Your task to perform on an android device: Open the Play Movies app and select the watchlist tab. Image 0: 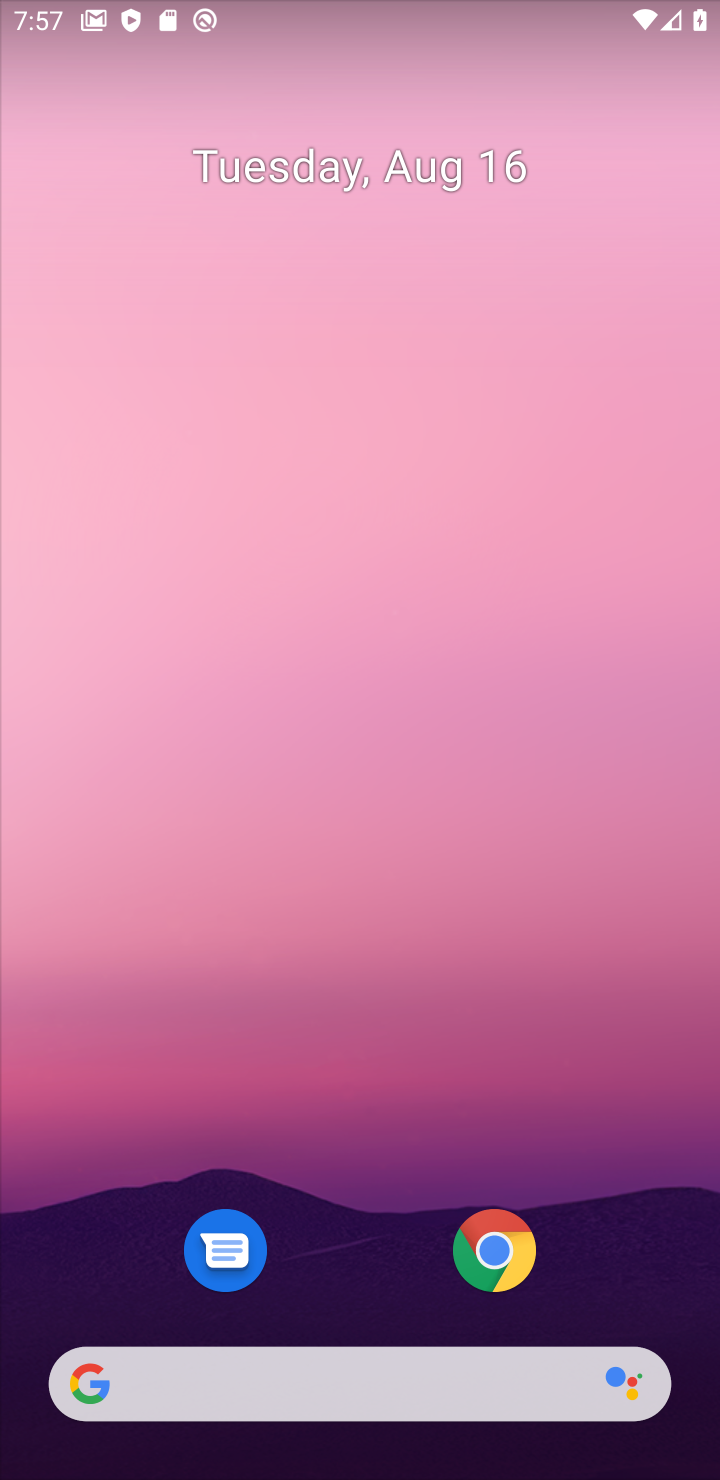
Step 0: drag from (402, 1246) to (252, 205)
Your task to perform on an android device: Open the Play Movies app and select the watchlist tab. Image 1: 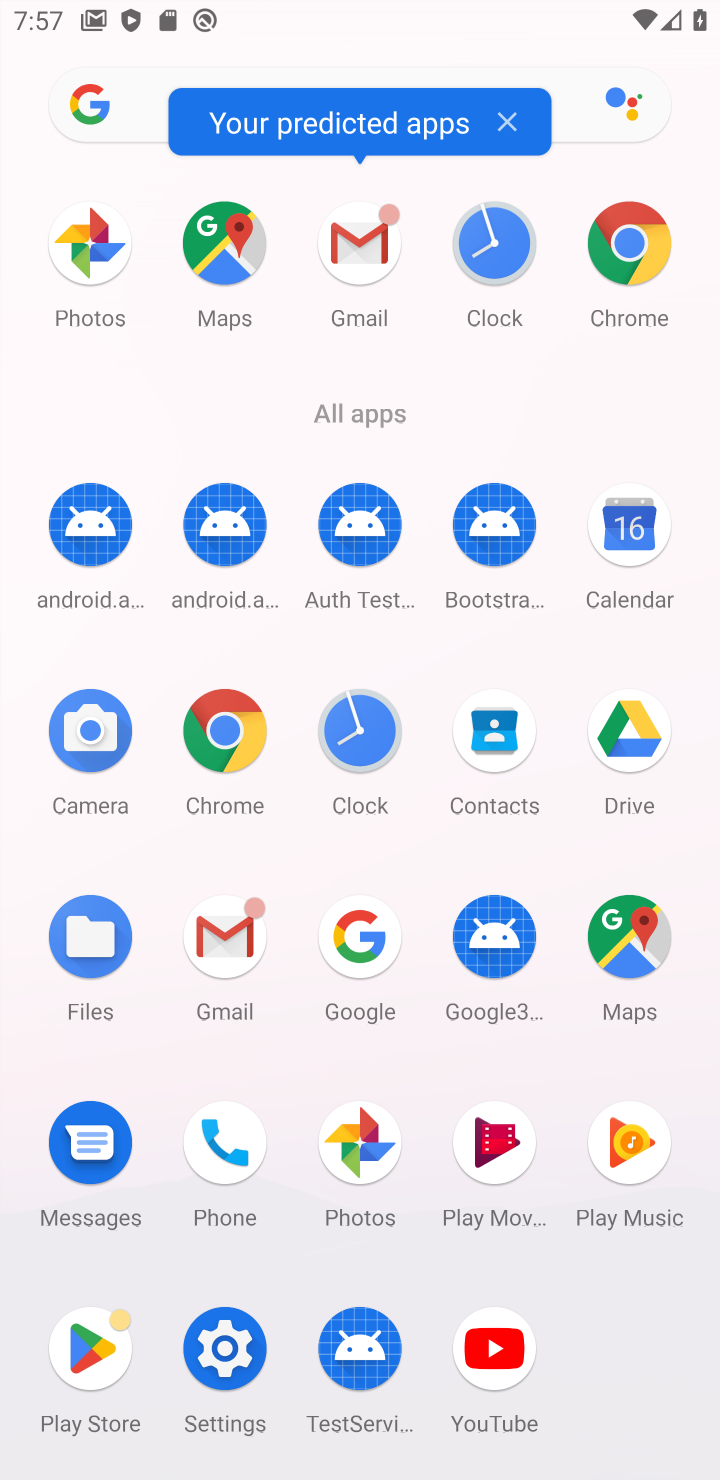
Step 1: click (500, 1150)
Your task to perform on an android device: Open the Play Movies app and select the watchlist tab. Image 2: 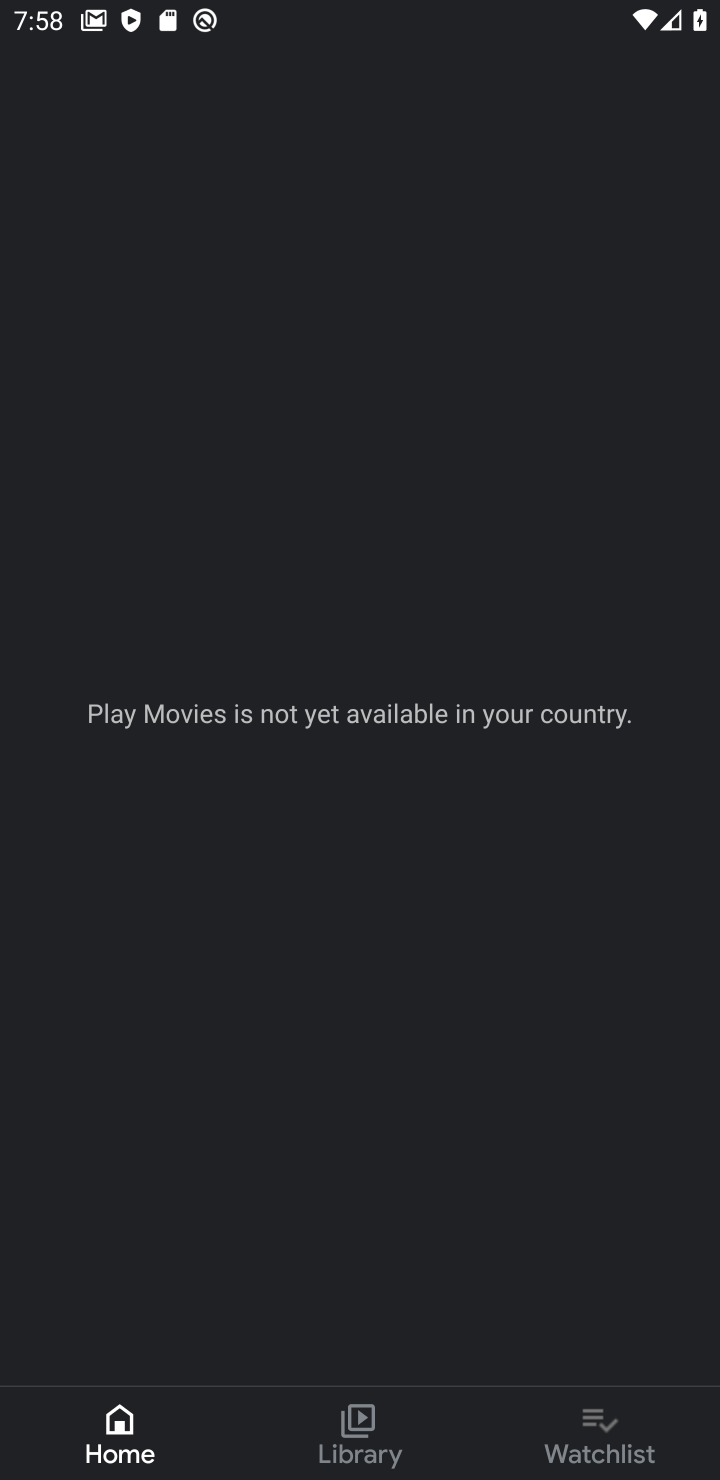
Step 2: click (643, 1411)
Your task to perform on an android device: Open the Play Movies app and select the watchlist tab. Image 3: 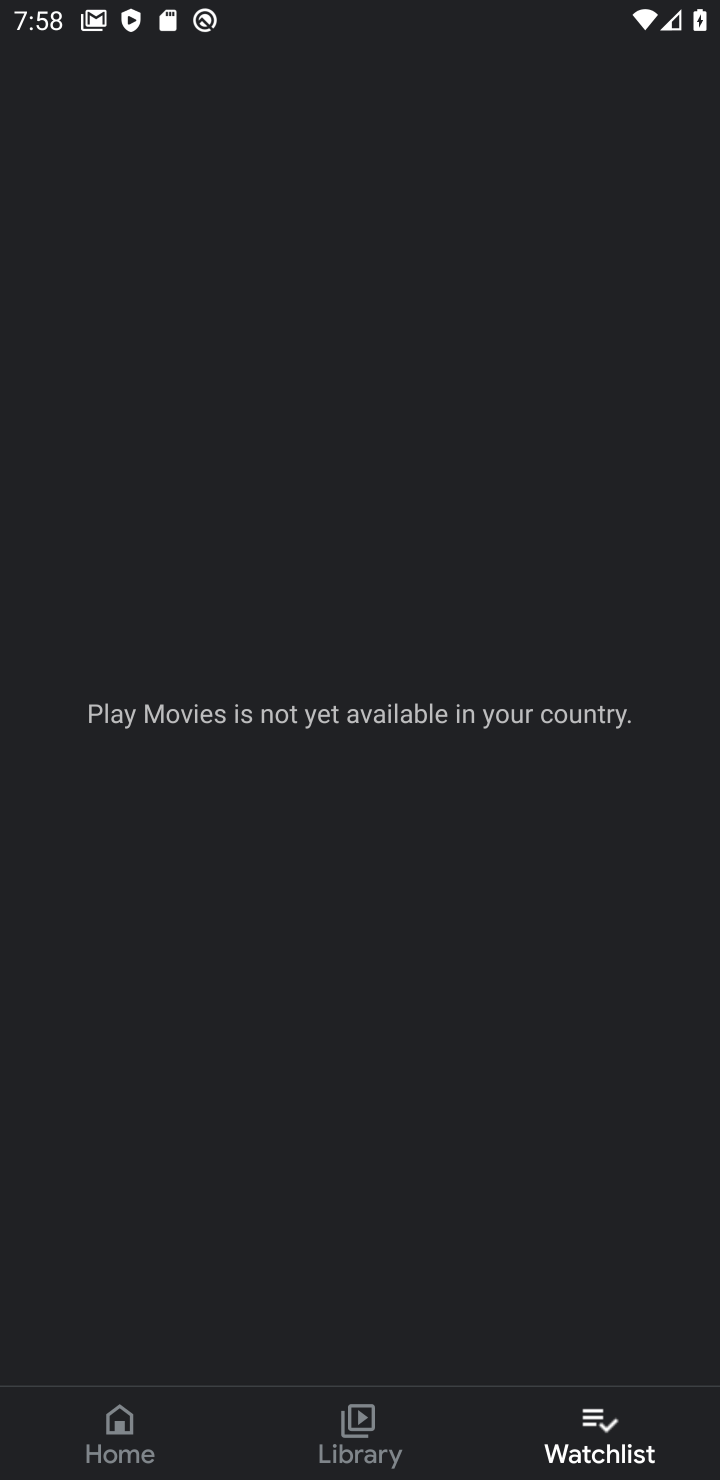
Step 3: task complete